Your task to perform on an android device: Search for sushi restaurants on Maps Image 0: 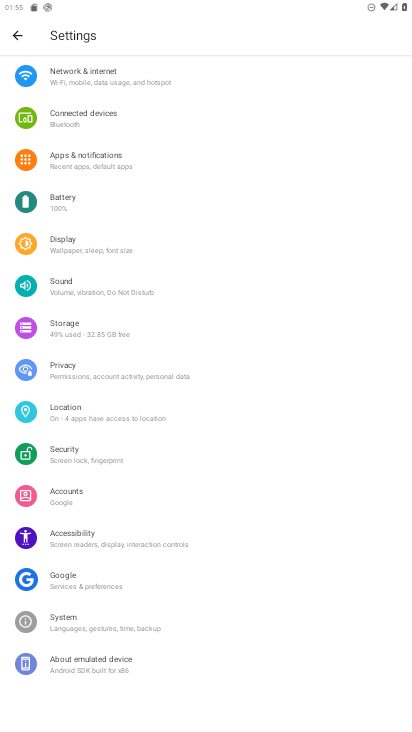
Step 0: press home button
Your task to perform on an android device: Search for sushi restaurants on Maps Image 1: 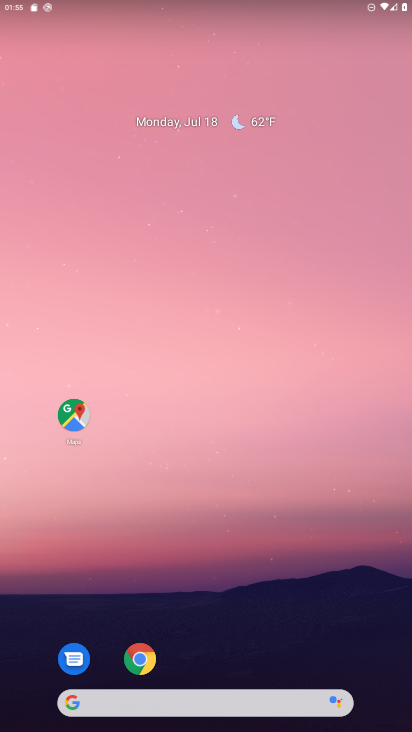
Step 1: drag from (293, 586) to (222, 67)
Your task to perform on an android device: Search for sushi restaurants on Maps Image 2: 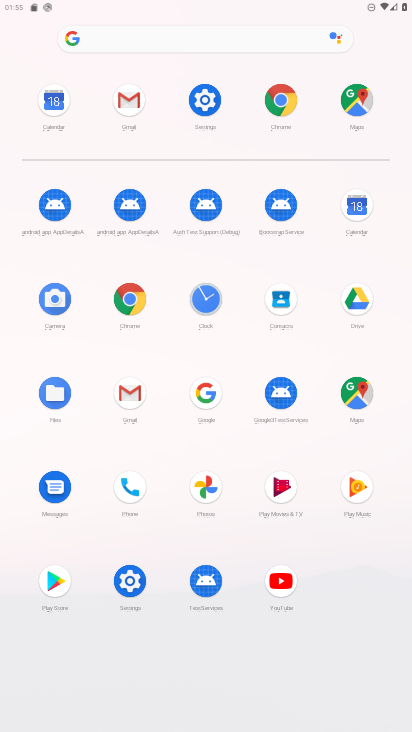
Step 2: click (361, 392)
Your task to perform on an android device: Search for sushi restaurants on Maps Image 3: 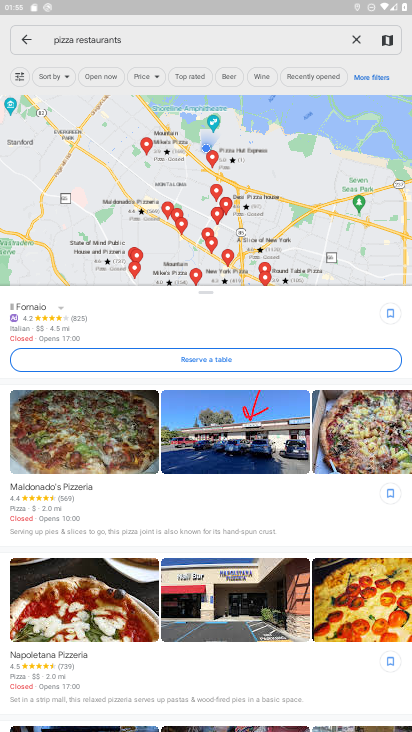
Step 3: click (355, 39)
Your task to perform on an android device: Search for sushi restaurants on Maps Image 4: 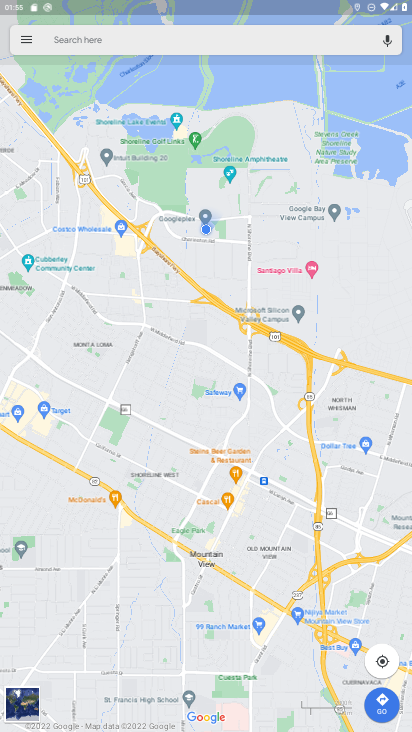
Step 4: click (285, 47)
Your task to perform on an android device: Search for sushi restaurants on Maps Image 5: 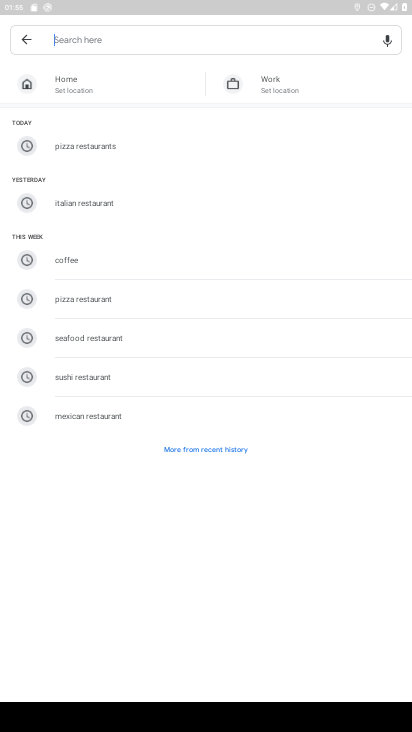
Step 5: type "sushi restaurants"
Your task to perform on an android device: Search for sushi restaurants on Maps Image 6: 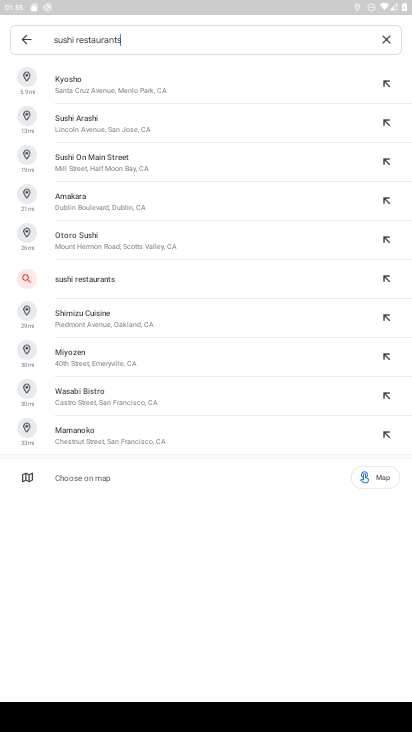
Step 6: press enter
Your task to perform on an android device: Search for sushi restaurants on Maps Image 7: 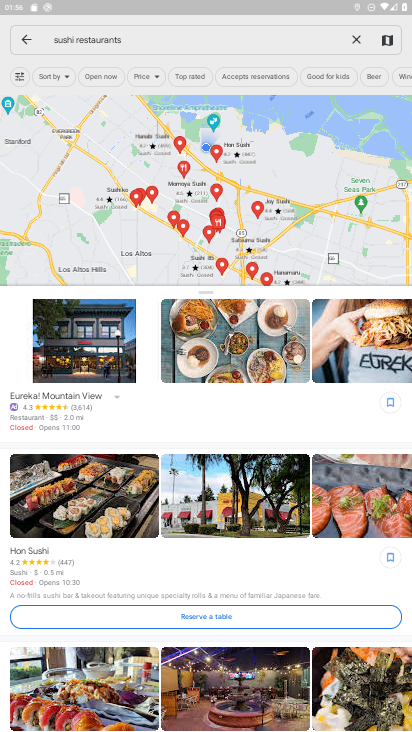
Step 7: task complete